Your task to perform on an android device: toggle pop-ups in chrome Image 0: 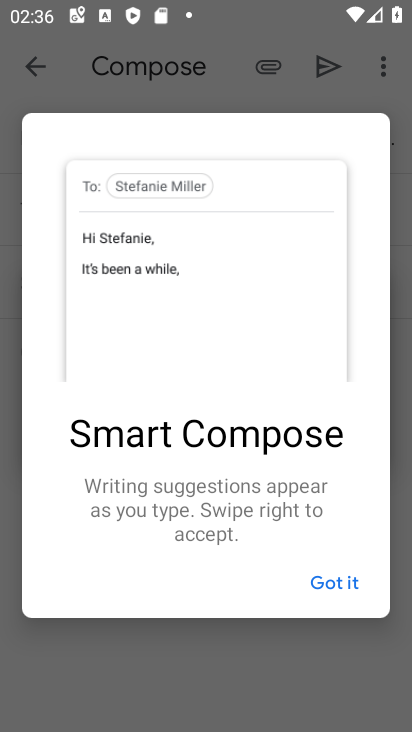
Step 0: press home button
Your task to perform on an android device: toggle pop-ups in chrome Image 1: 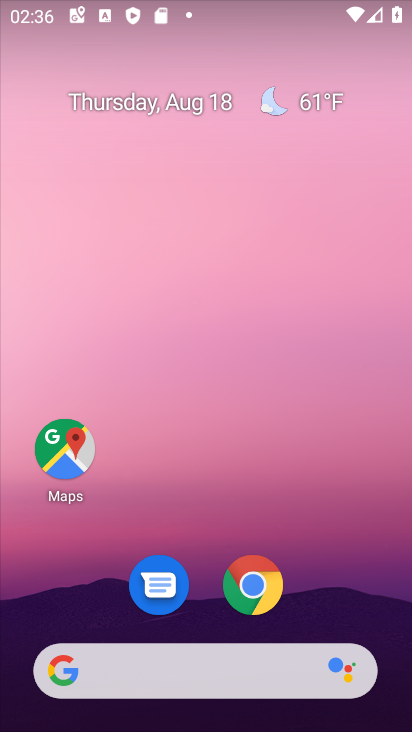
Step 1: click (259, 588)
Your task to perform on an android device: toggle pop-ups in chrome Image 2: 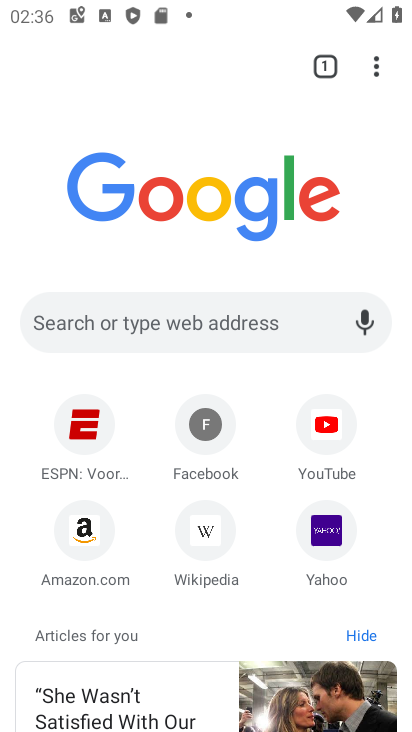
Step 2: click (374, 75)
Your task to perform on an android device: toggle pop-ups in chrome Image 3: 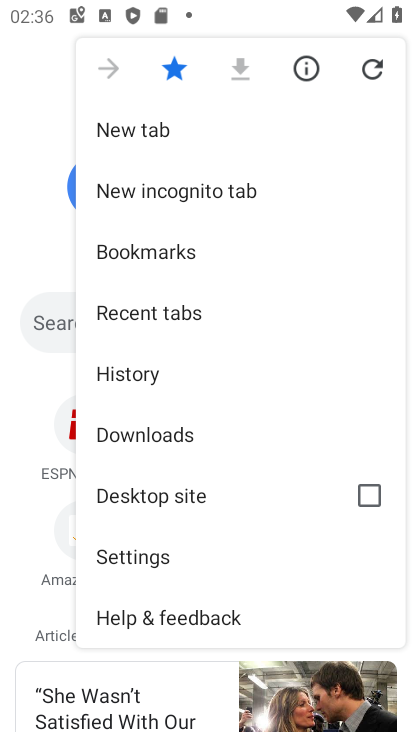
Step 3: click (201, 549)
Your task to perform on an android device: toggle pop-ups in chrome Image 4: 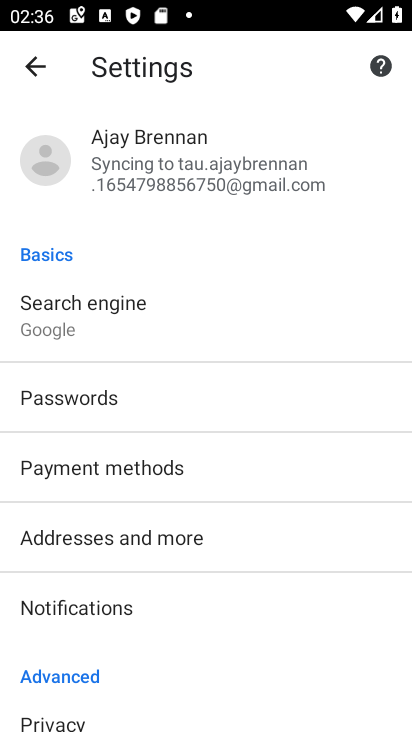
Step 4: drag from (209, 531) to (274, 92)
Your task to perform on an android device: toggle pop-ups in chrome Image 5: 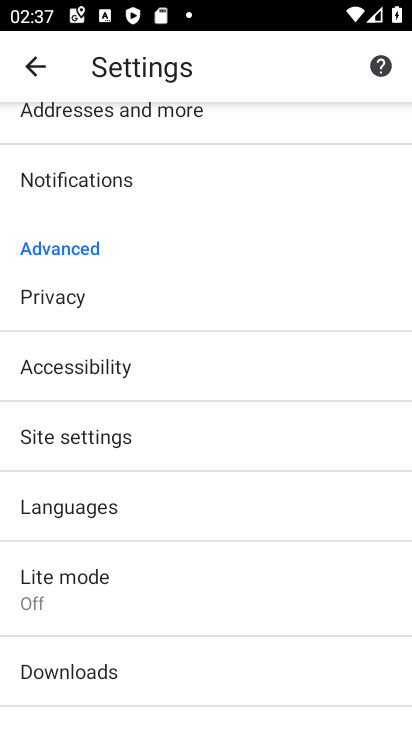
Step 5: click (169, 440)
Your task to perform on an android device: toggle pop-ups in chrome Image 6: 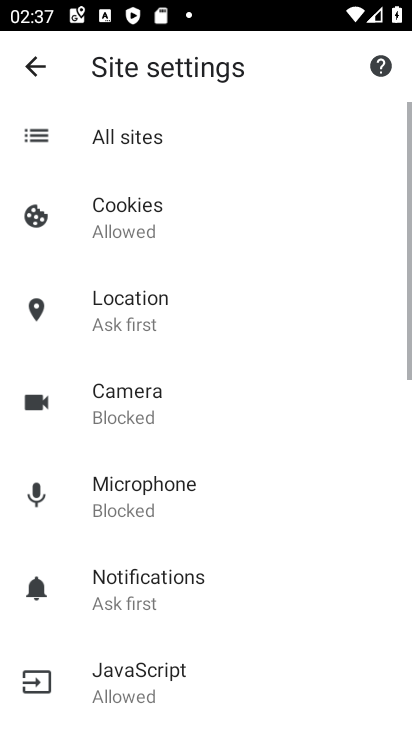
Step 6: drag from (169, 437) to (203, 151)
Your task to perform on an android device: toggle pop-ups in chrome Image 7: 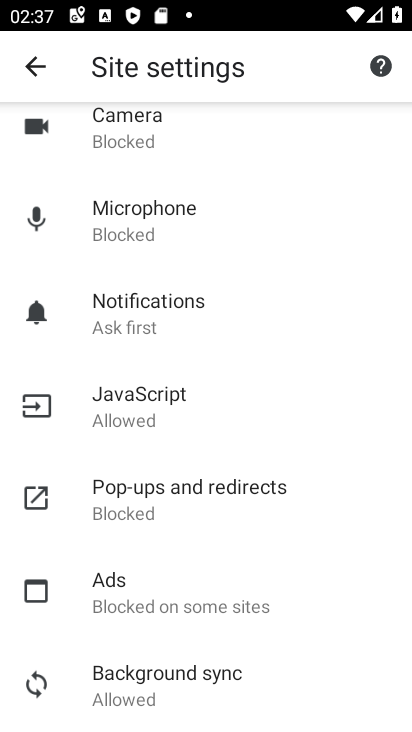
Step 7: click (222, 489)
Your task to perform on an android device: toggle pop-ups in chrome Image 8: 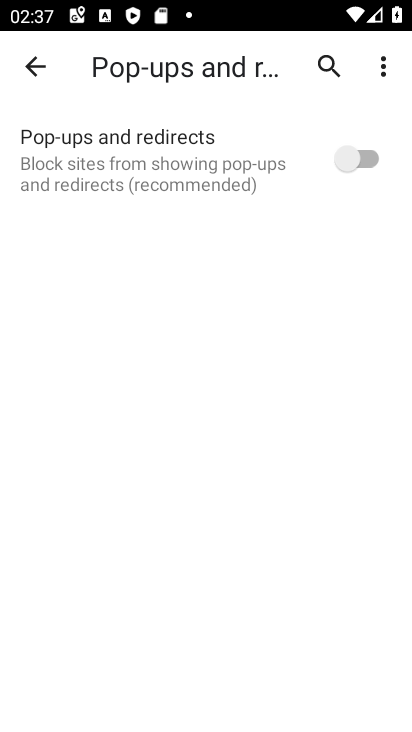
Step 8: click (367, 159)
Your task to perform on an android device: toggle pop-ups in chrome Image 9: 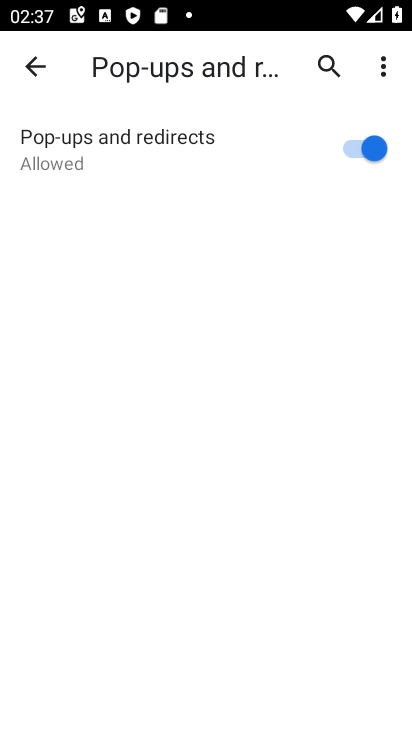
Step 9: task complete